Your task to perform on an android device: Open the map Image 0: 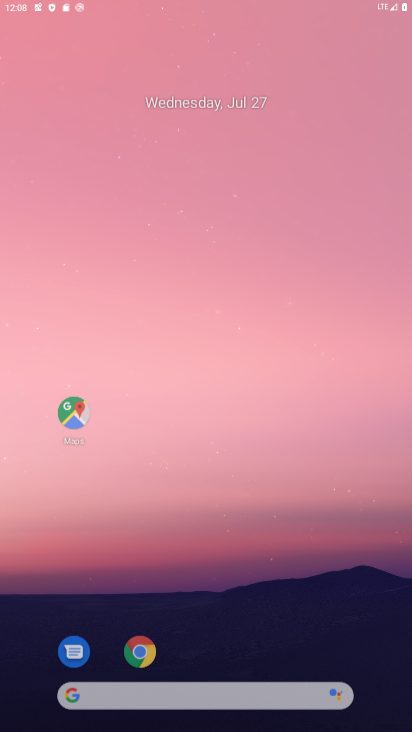
Step 0: click (337, 478)
Your task to perform on an android device: Open the map Image 1: 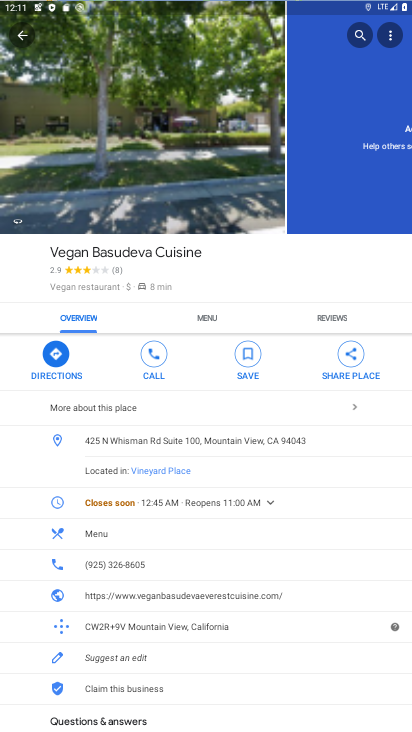
Step 1: press home button
Your task to perform on an android device: Open the map Image 2: 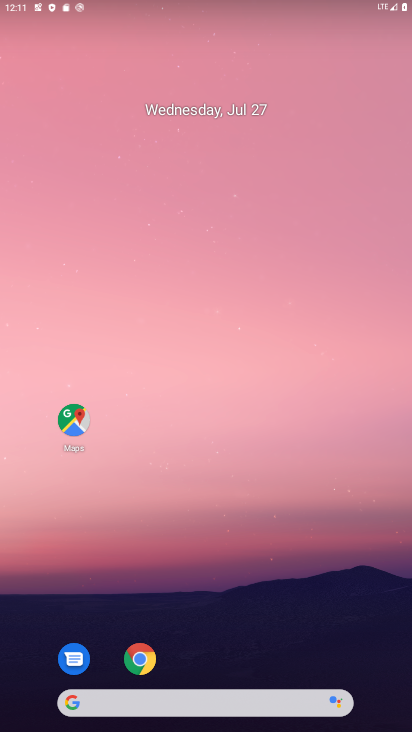
Step 2: drag from (273, 538) to (260, 23)
Your task to perform on an android device: Open the map Image 3: 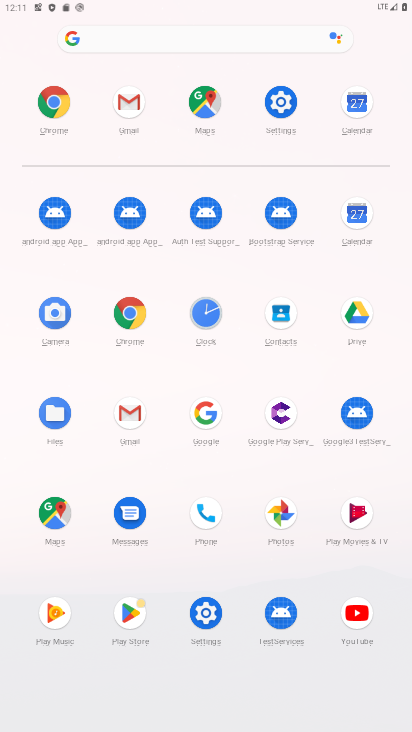
Step 3: click (50, 521)
Your task to perform on an android device: Open the map Image 4: 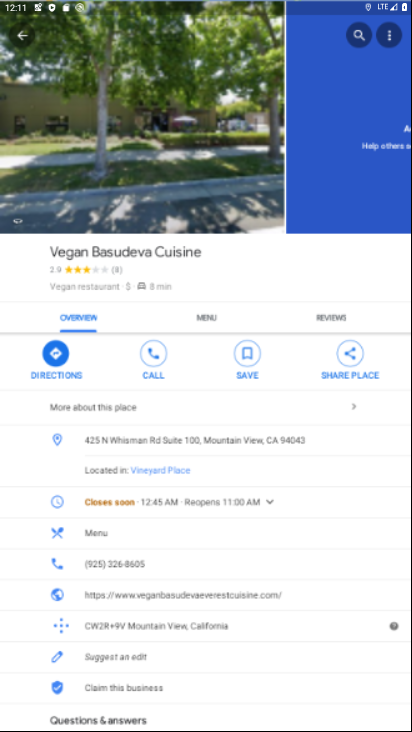
Step 4: task complete